Your task to perform on an android device: turn on showing notifications on the lock screen Image 0: 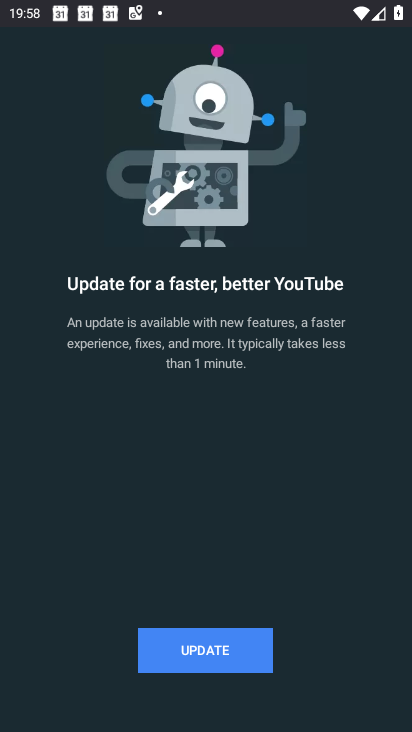
Step 0: press home button
Your task to perform on an android device: turn on showing notifications on the lock screen Image 1: 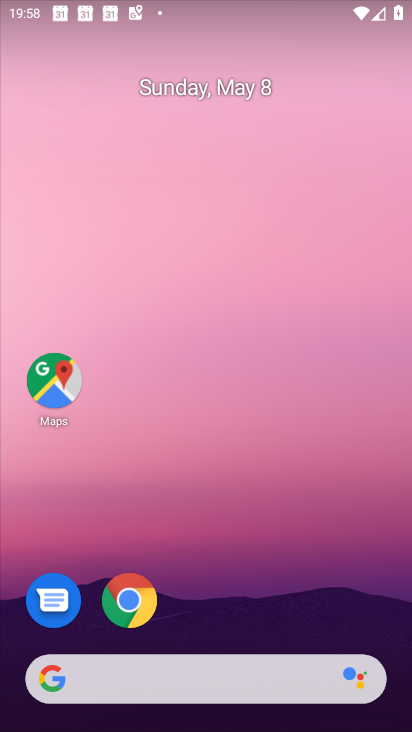
Step 1: drag from (234, 705) to (271, 271)
Your task to perform on an android device: turn on showing notifications on the lock screen Image 2: 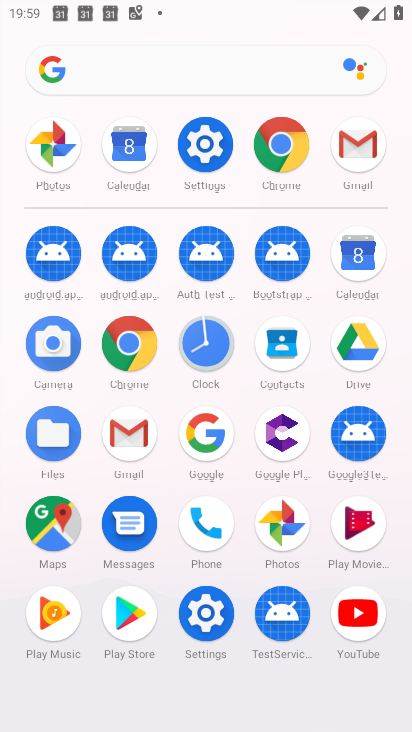
Step 2: click (210, 145)
Your task to perform on an android device: turn on showing notifications on the lock screen Image 3: 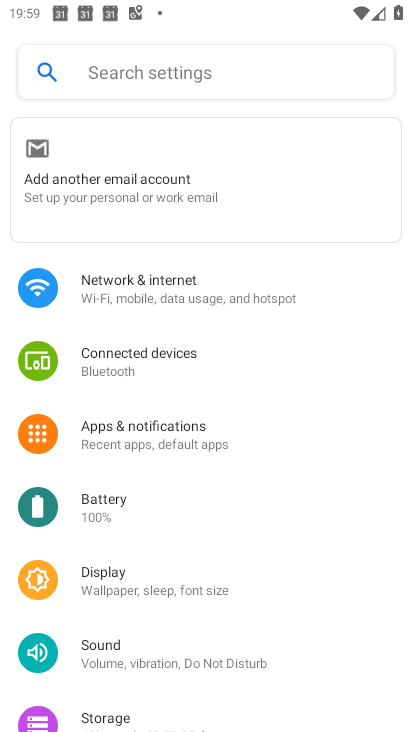
Step 3: click (181, 76)
Your task to perform on an android device: turn on showing notifications on the lock screen Image 4: 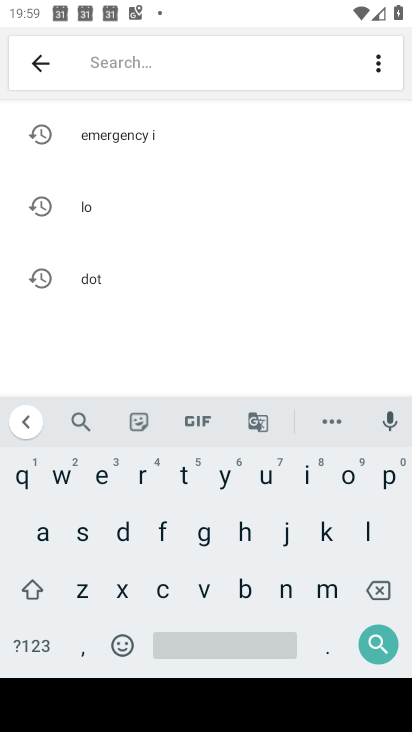
Step 4: click (283, 587)
Your task to perform on an android device: turn on showing notifications on the lock screen Image 5: 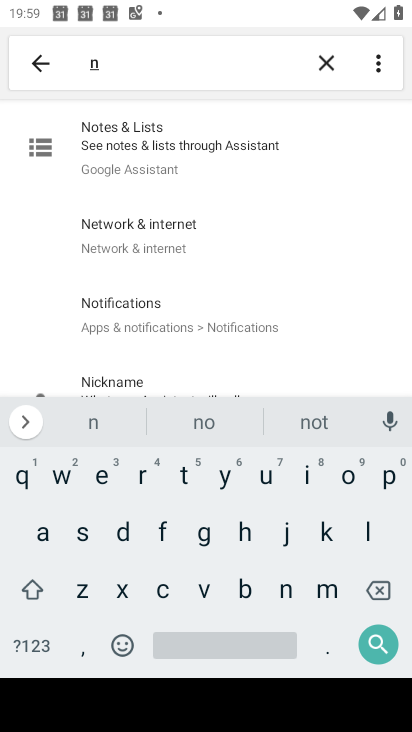
Step 5: click (343, 475)
Your task to perform on an android device: turn on showing notifications on the lock screen Image 6: 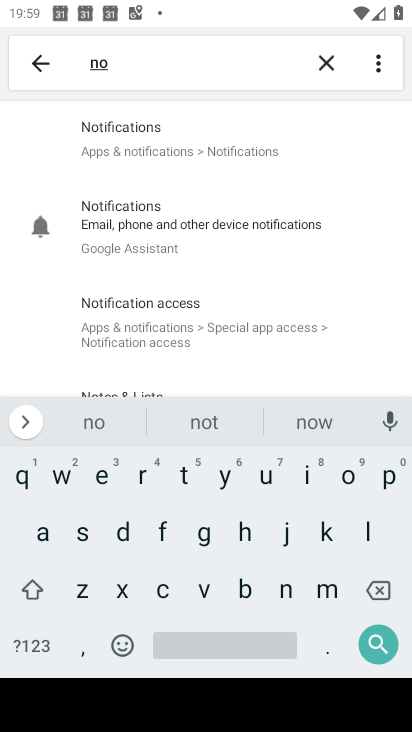
Step 6: click (199, 163)
Your task to perform on an android device: turn on showing notifications on the lock screen Image 7: 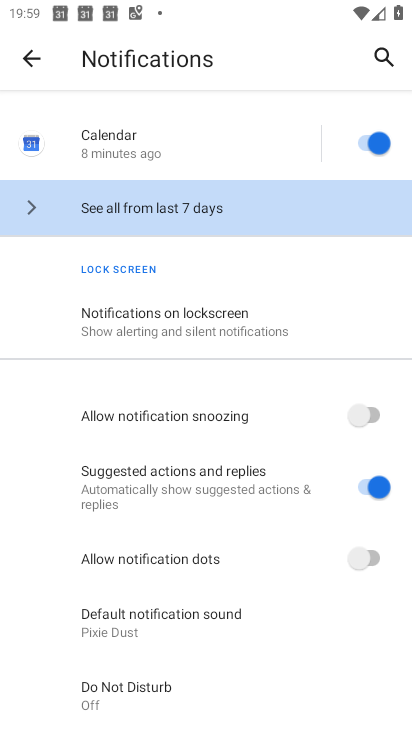
Step 7: click (176, 320)
Your task to perform on an android device: turn on showing notifications on the lock screen Image 8: 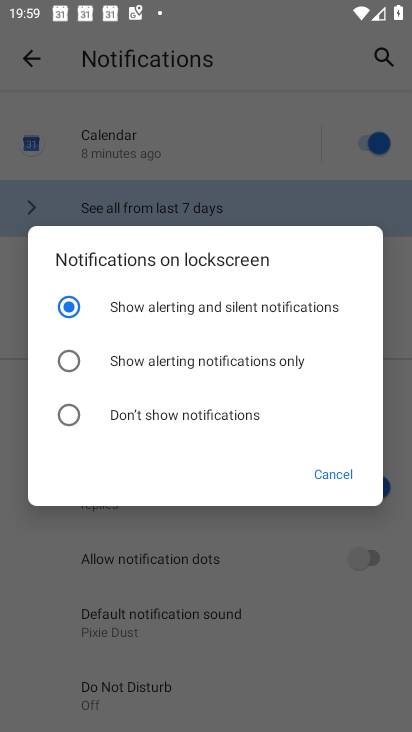
Step 8: task complete